Your task to perform on an android device: Go to display settings Image 0: 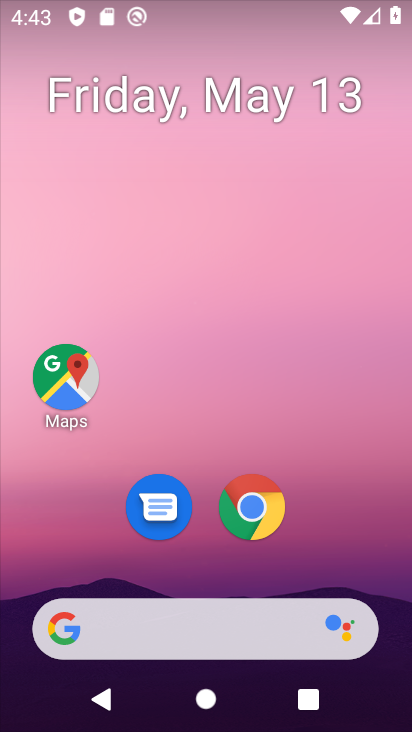
Step 0: drag from (358, 552) to (274, 72)
Your task to perform on an android device: Go to display settings Image 1: 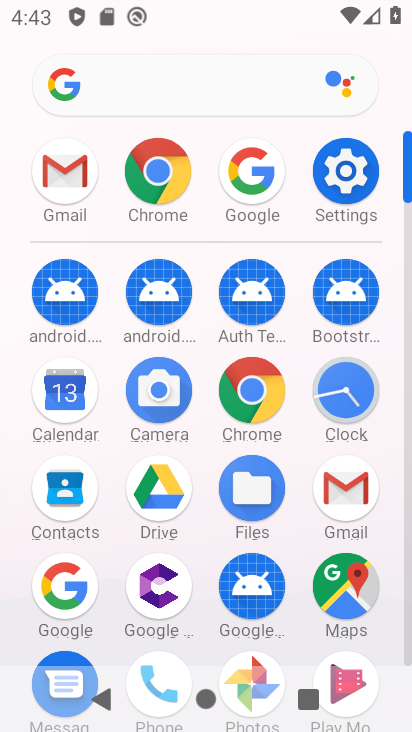
Step 1: click (344, 173)
Your task to perform on an android device: Go to display settings Image 2: 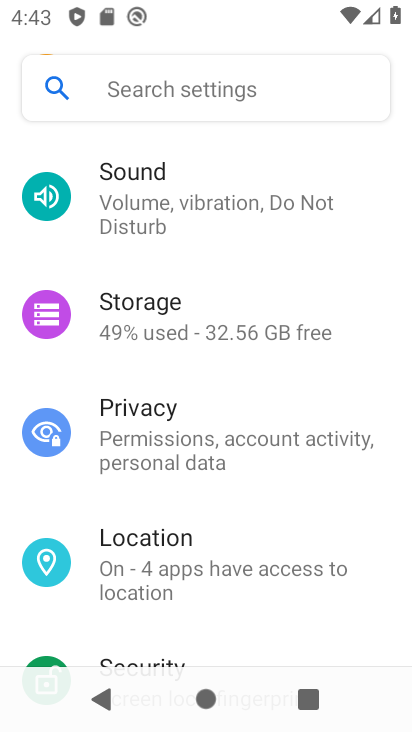
Step 2: drag from (255, 234) to (261, 600)
Your task to perform on an android device: Go to display settings Image 3: 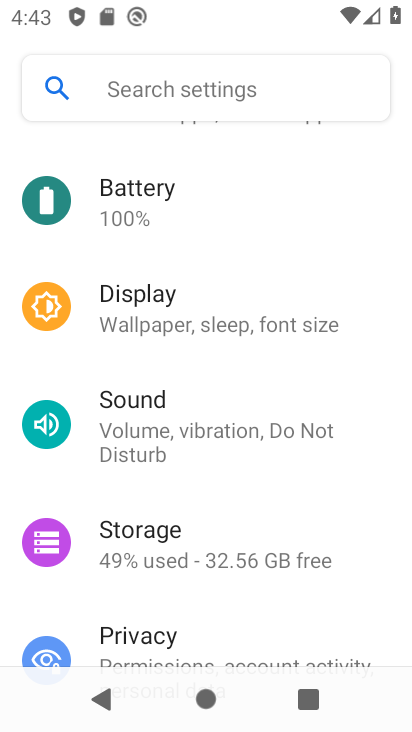
Step 3: click (218, 303)
Your task to perform on an android device: Go to display settings Image 4: 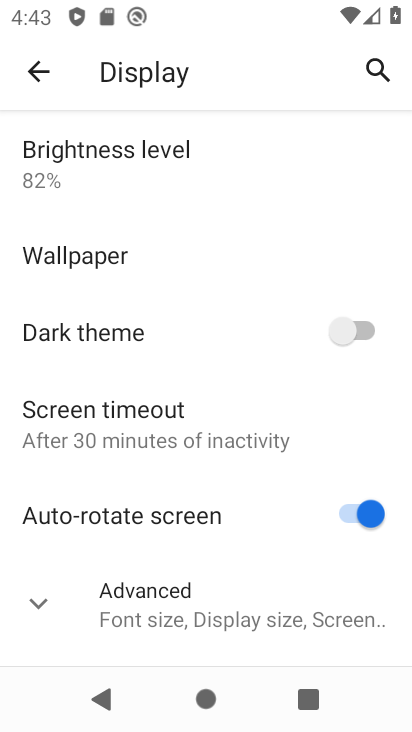
Step 4: task complete